Your task to perform on an android device: open a bookmark in the chrome app Image 0: 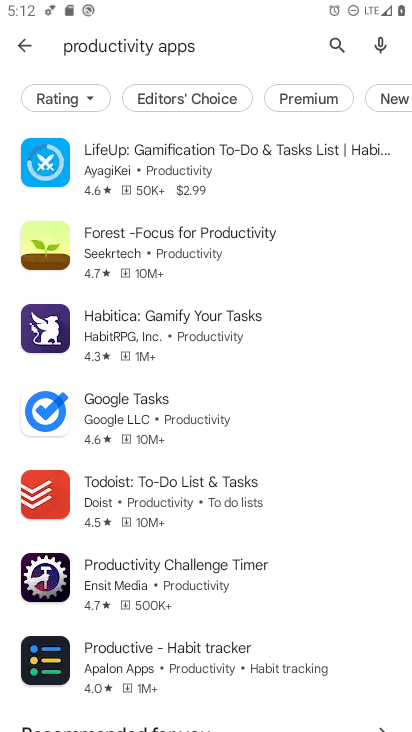
Step 0: press home button
Your task to perform on an android device: open a bookmark in the chrome app Image 1: 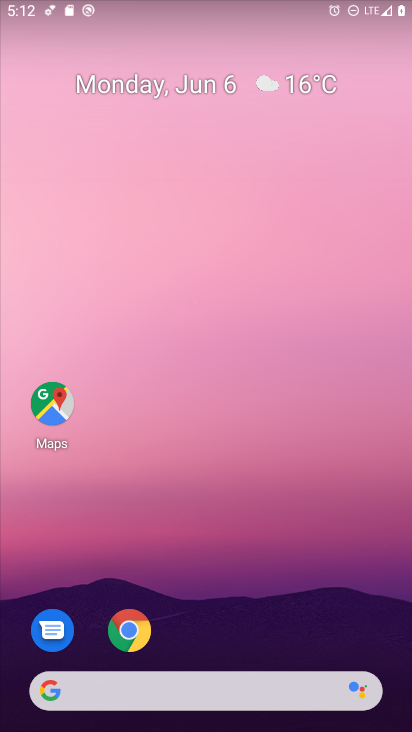
Step 1: click (133, 629)
Your task to perform on an android device: open a bookmark in the chrome app Image 2: 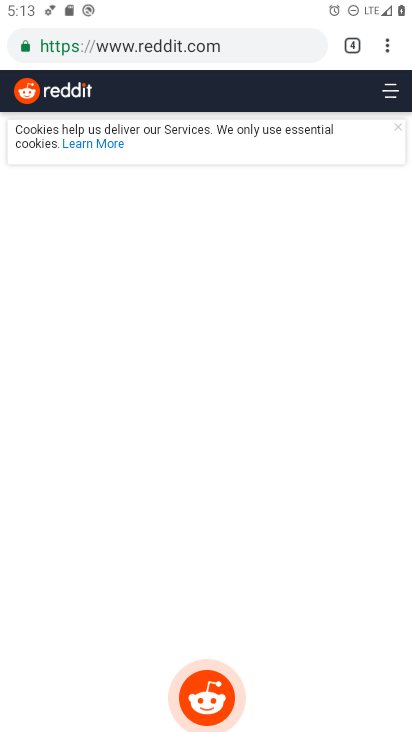
Step 2: click (377, 39)
Your task to perform on an android device: open a bookmark in the chrome app Image 3: 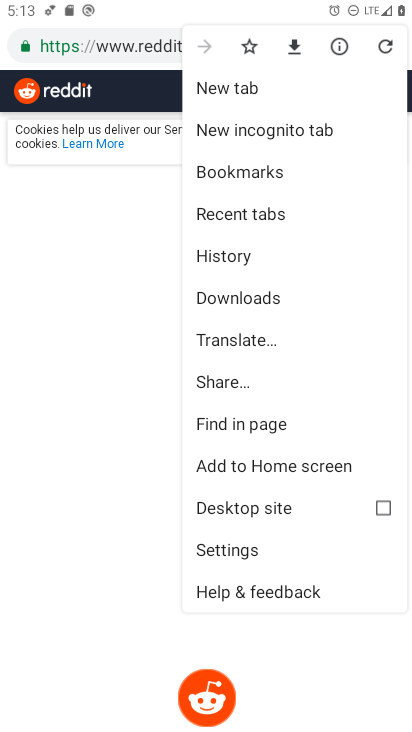
Step 3: click (252, 177)
Your task to perform on an android device: open a bookmark in the chrome app Image 4: 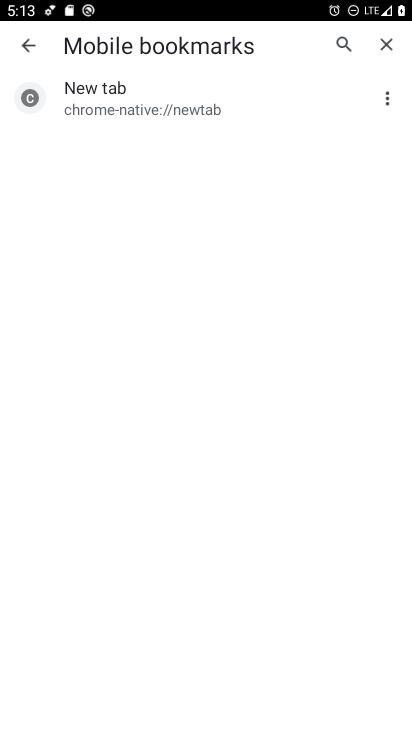
Step 4: click (163, 98)
Your task to perform on an android device: open a bookmark in the chrome app Image 5: 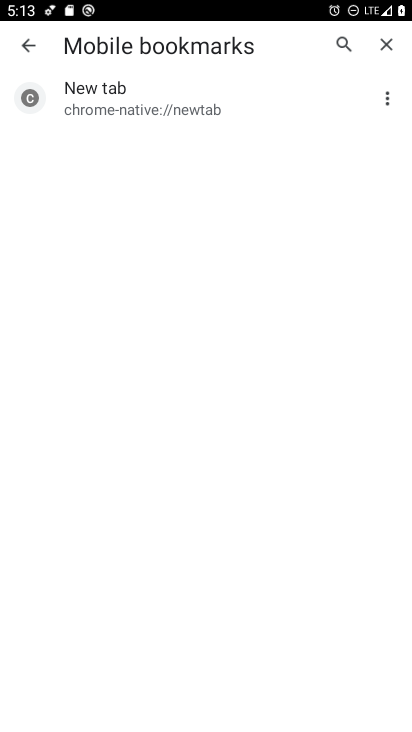
Step 5: task complete